Your task to perform on an android device: What's the weather? Image 0: 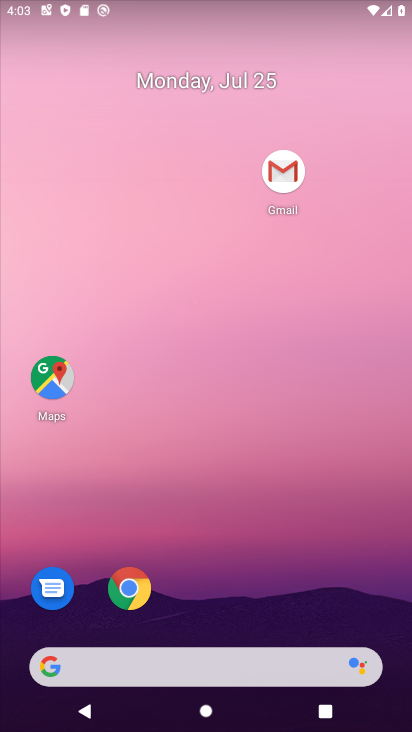
Step 0: drag from (322, 570) to (267, 63)
Your task to perform on an android device: What's the weather? Image 1: 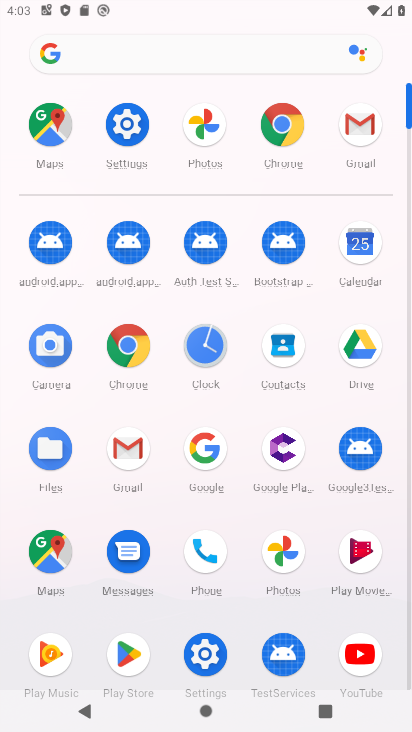
Step 1: click (289, 119)
Your task to perform on an android device: What's the weather? Image 2: 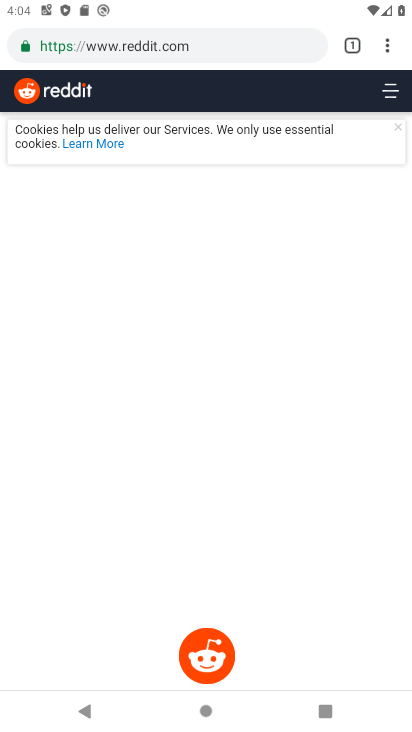
Step 2: click (198, 40)
Your task to perform on an android device: What's the weather? Image 3: 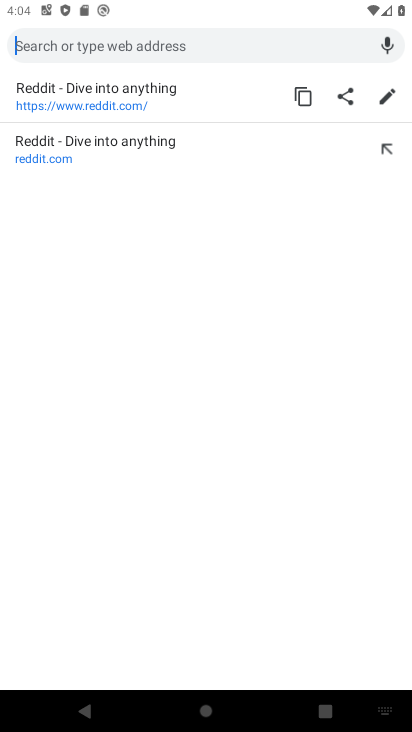
Step 3: type "weather"
Your task to perform on an android device: What's the weather? Image 4: 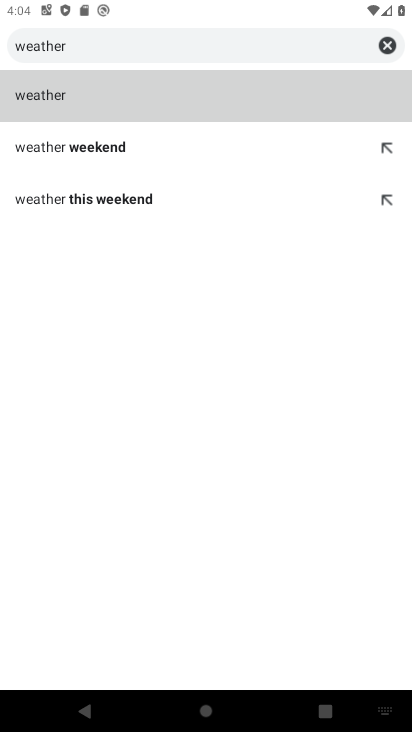
Step 4: click (71, 88)
Your task to perform on an android device: What's the weather? Image 5: 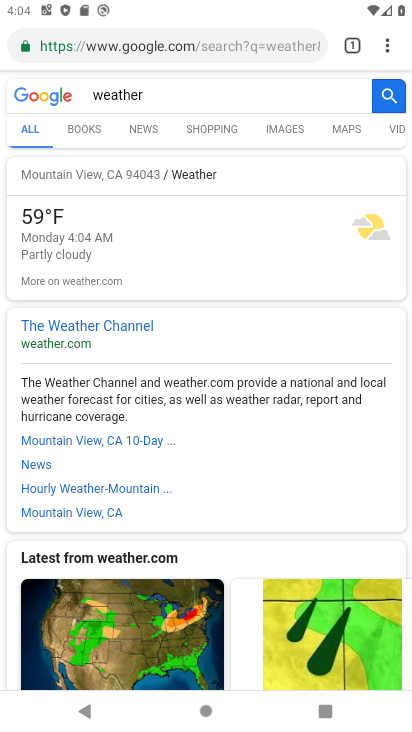
Step 5: task complete